Your task to perform on an android device: find which apps use the phone's location Image 0: 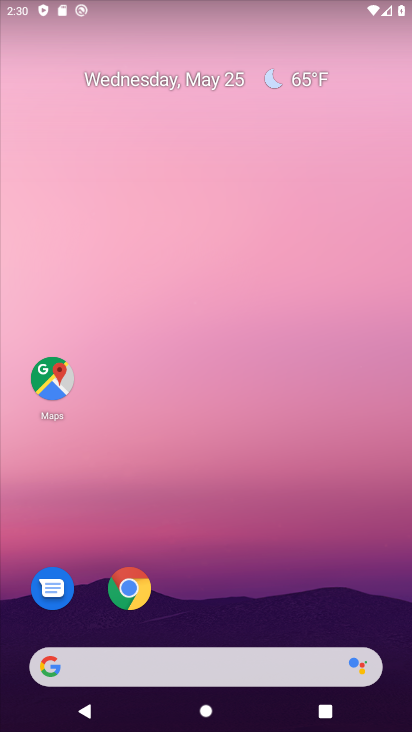
Step 0: press home button
Your task to perform on an android device: find which apps use the phone's location Image 1: 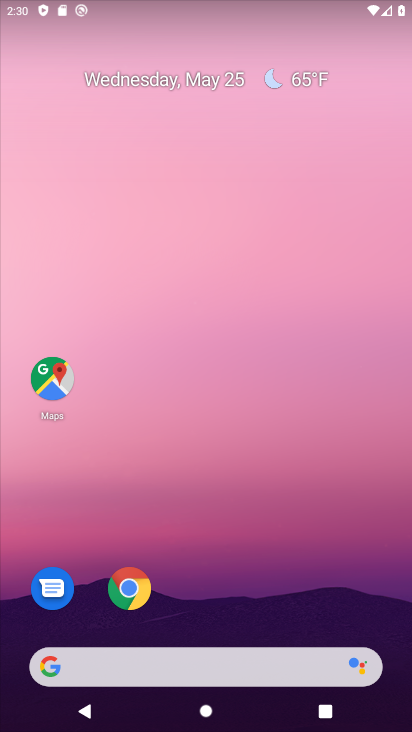
Step 1: drag from (138, 347) to (133, 208)
Your task to perform on an android device: find which apps use the phone's location Image 2: 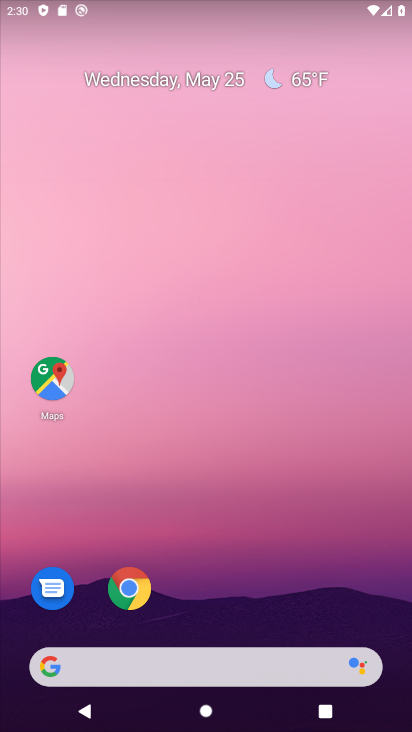
Step 2: drag from (185, 587) to (236, 98)
Your task to perform on an android device: find which apps use the phone's location Image 3: 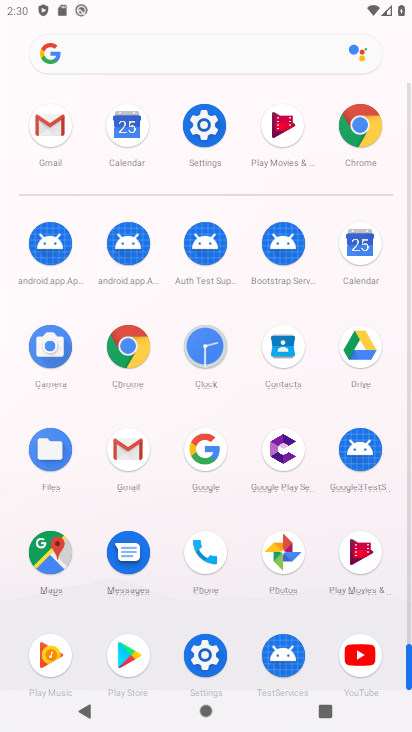
Step 3: click (200, 126)
Your task to perform on an android device: find which apps use the phone's location Image 4: 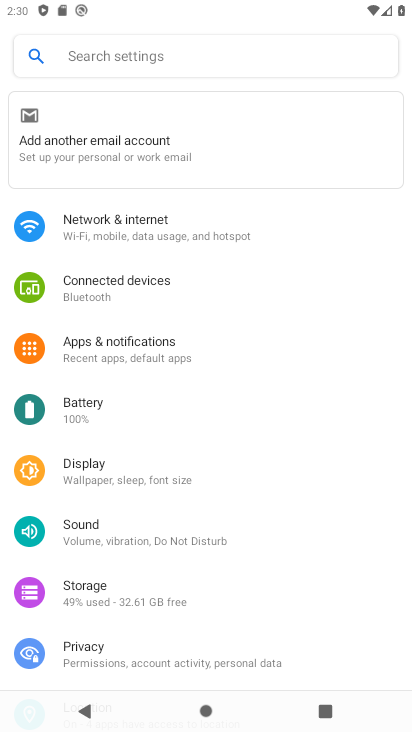
Step 4: drag from (125, 576) to (158, 150)
Your task to perform on an android device: find which apps use the phone's location Image 5: 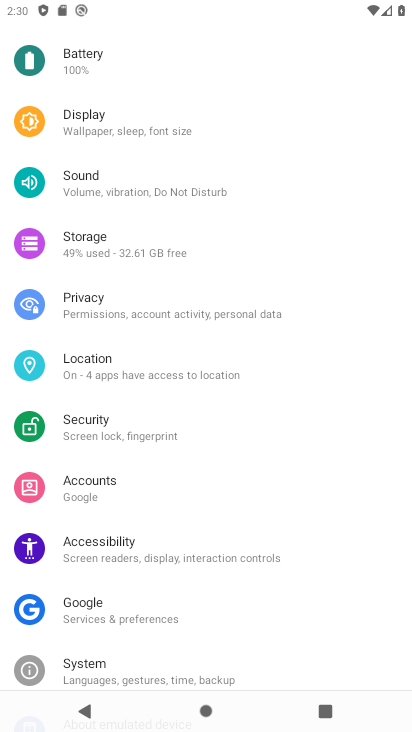
Step 5: drag from (119, 573) to (171, 235)
Your task to perform on an android device: find which apps use the phone's location Image 6: 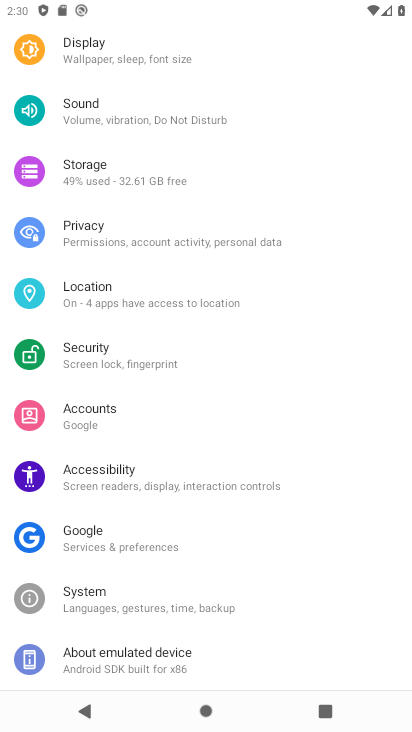
Step 6: drag from (145, 153) to (135, 550)
Your task to perform on an android device: find which apps use the phone's location Image 7: 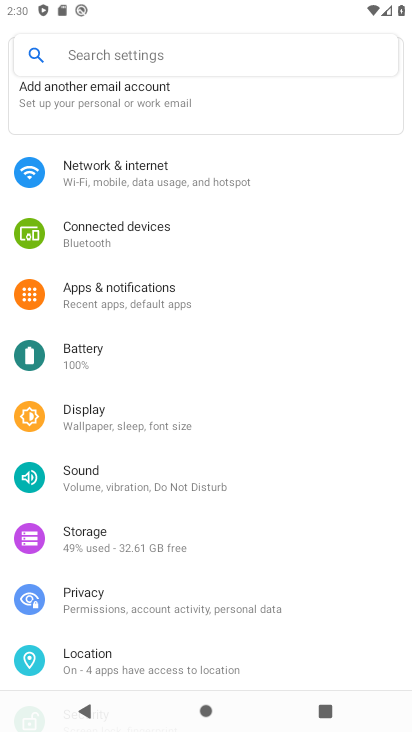
Step 7: drag from (122, 573) to (190, 227)
Your task to perform on an android device: find which apps use the phone's location Image 8: 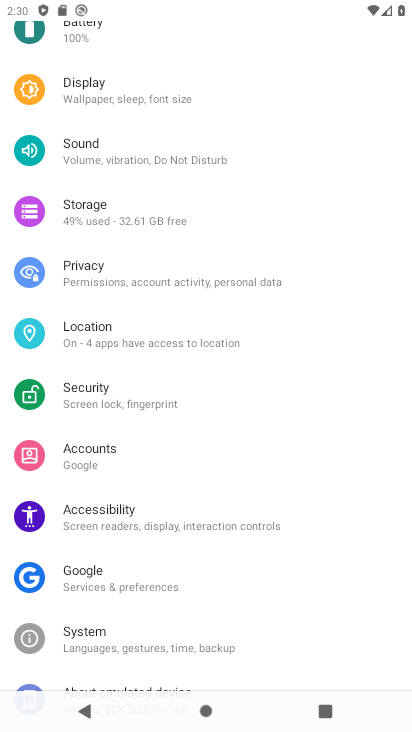
Step 8: click (139, 342)
Your task to perform on an android device: find which apps use the phone's location Image 9: 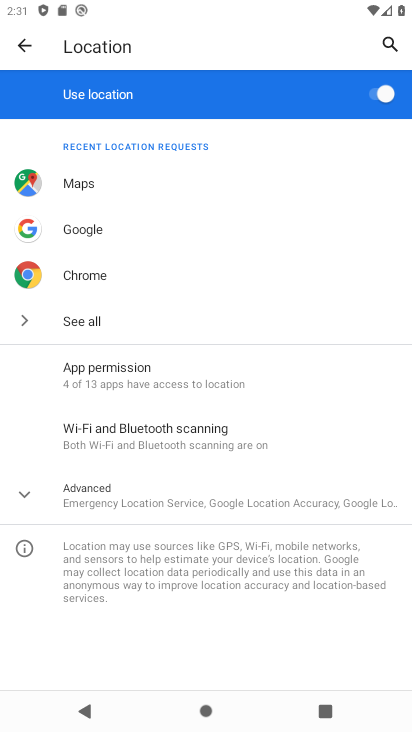
Step 9: task complete